Your task to perform on an android device: open app "Skype" Image 0: 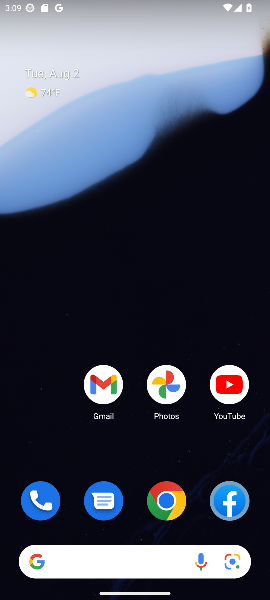
Step 0: drag from (128, 434) to (99, 35)
Your task to perform on an android device: open app "Skype" Image 1: 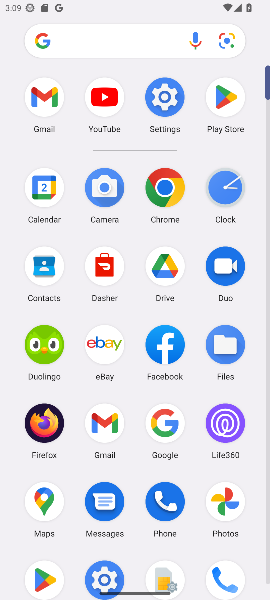
Step 1: click (223, 105)
Your task to perform on an android device: open app "Skype" Image 2: 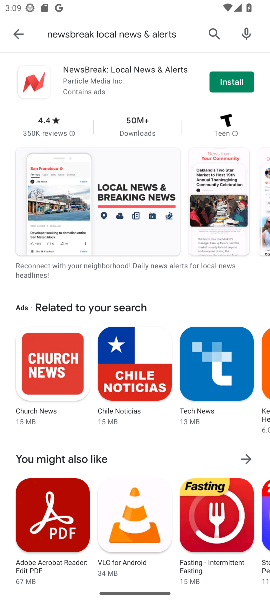
Step 2: click (207, 33)
Your task to perform on an android device: open app "Skype" Image 3: 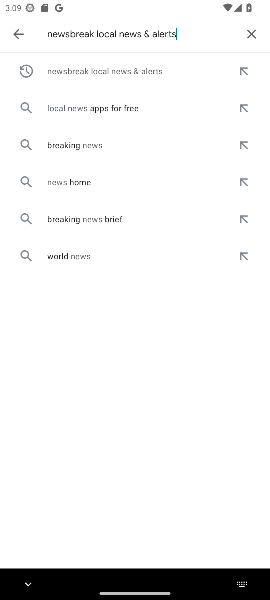
Step 3: click (249, 37)
Your task to perform on an android device: open app "Skype" Image 4: 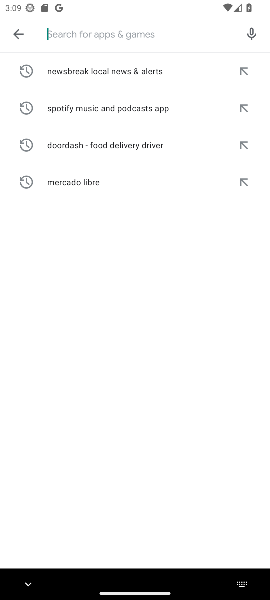
Step 4: type "Skype"
Your task to perform on an android device: open app "Skype" Image 5: 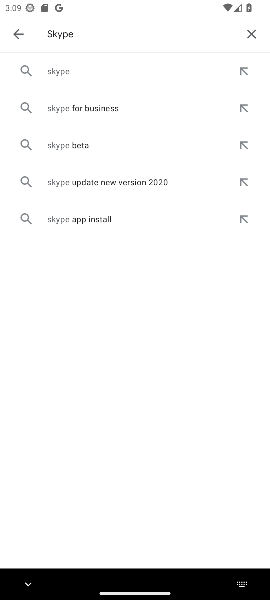
Step 5: click (68, 76)
Your task to perform on an android device: open app "Skype" Image 6: 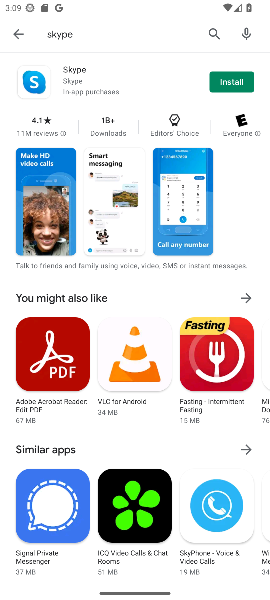
Step 6: task complete